Your task to perform on an android device: open sync settings in chrome Image 0: 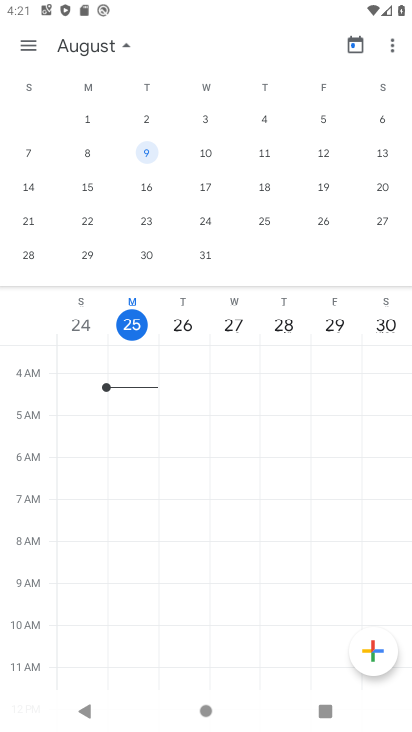
Step 0: press home button
Your task to perform on an android device: open sync settings in chrome Image 1: 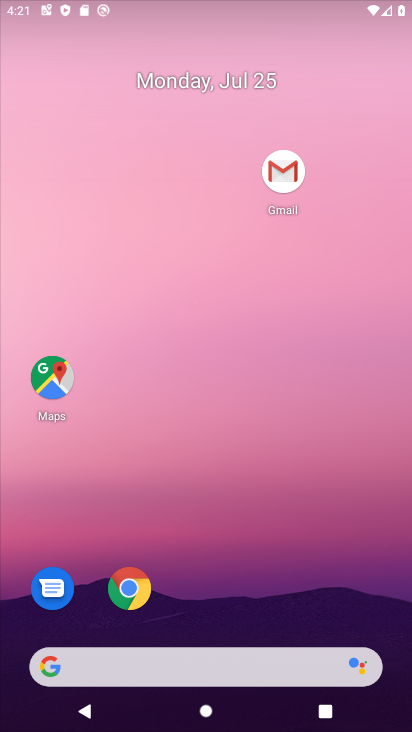
Step 1: drag from (222, 483) to (236, 54)
Your task to perform on an android device: open sync settings in chrome Image 2: 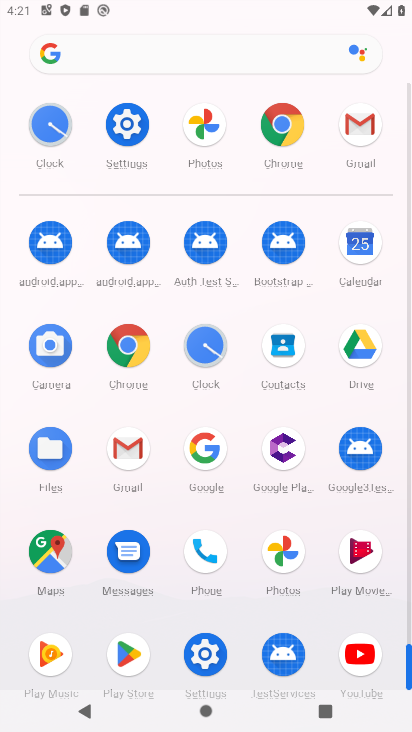
Step 2: click (279, 119)
Your task to perform on an android device: open sync settings in chrome Image 3: 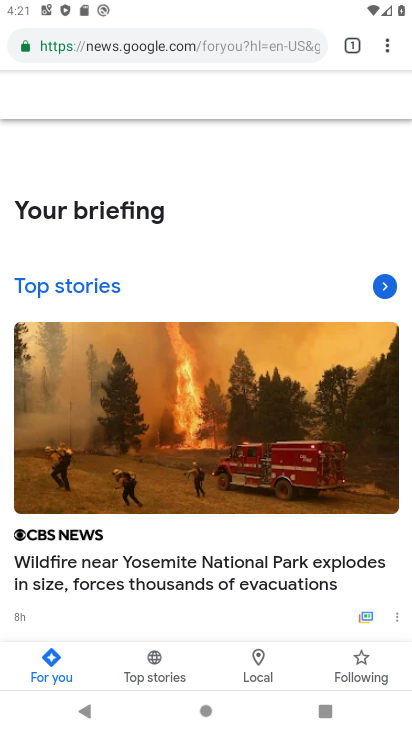
Step 3: drag from (391, 45) to (231, 544)
Your task to perform on an android device: open sync settings in chrome Image 4: 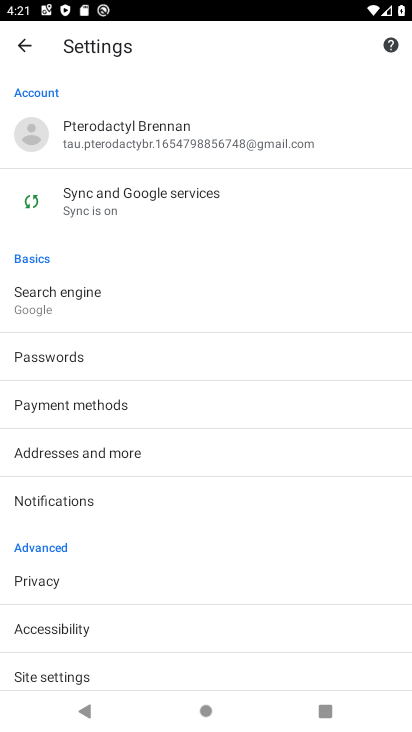
Step 4: click (163, 205)
Your task to perform on an android device: open sync settings in chrome Image 5: 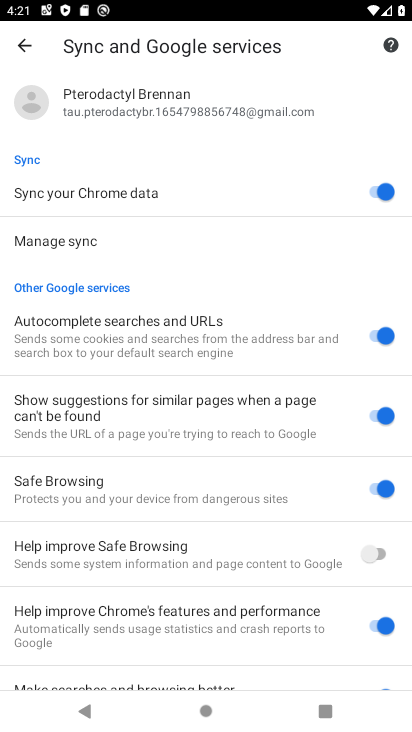
Step 5: task complete